Your task to perform on an android device: turn on bluetooth scan Image 0: 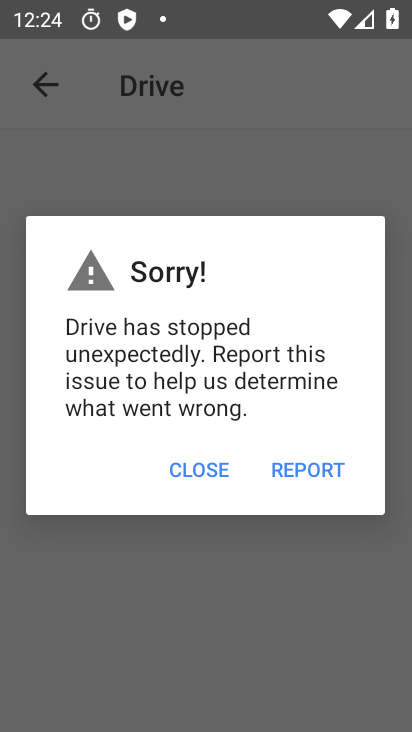
Step 0: press home button
Your task to perform on an android device: turn on bluetooth scan Image 1: 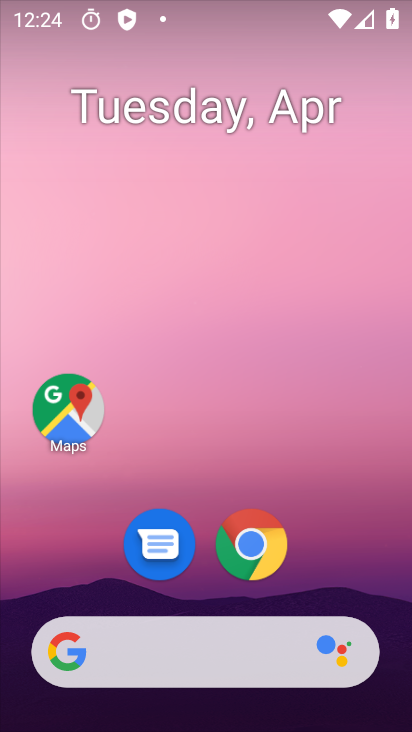
Step 1: drag from (360, 590) to (377, 32)
Your task to perform on an android device: turn on bluetooth scan Image 2: 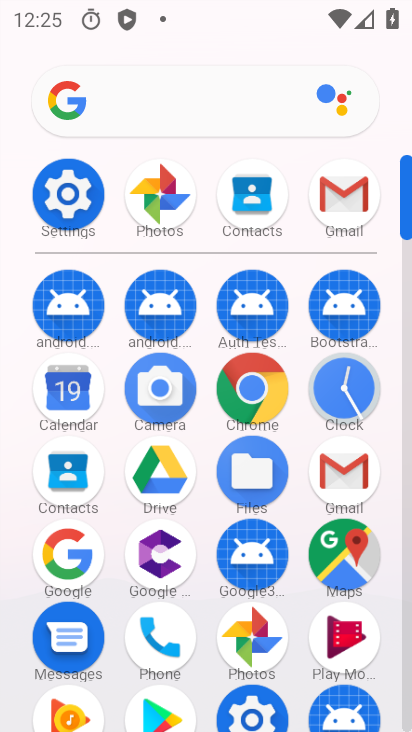
Step 2: click (72, 190)
Your task to perform on an android device: turn on bluetooth scan Image 3: 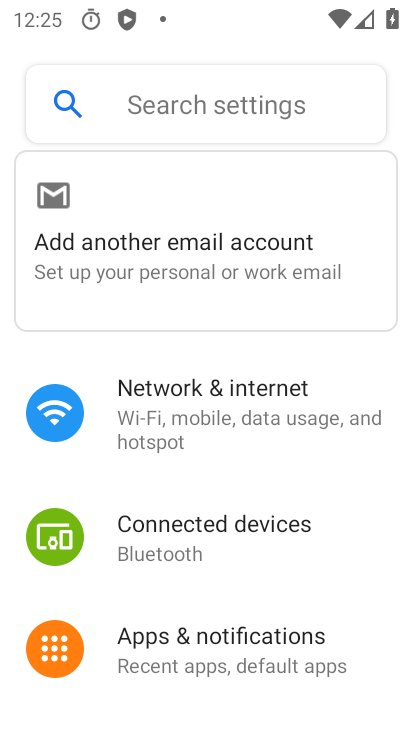
Step 3: drag from (393, 604) to (389, 271)
Your task to perform on an android device: turn on bluetooth scan Image 4: 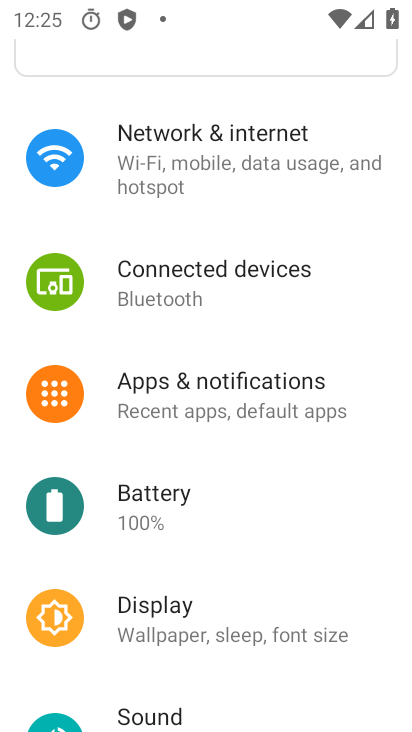
Step 4: drag from (395, 548) to (391, 325)
Your task to perform on an android device: turn on bluetooth scan Image 5: 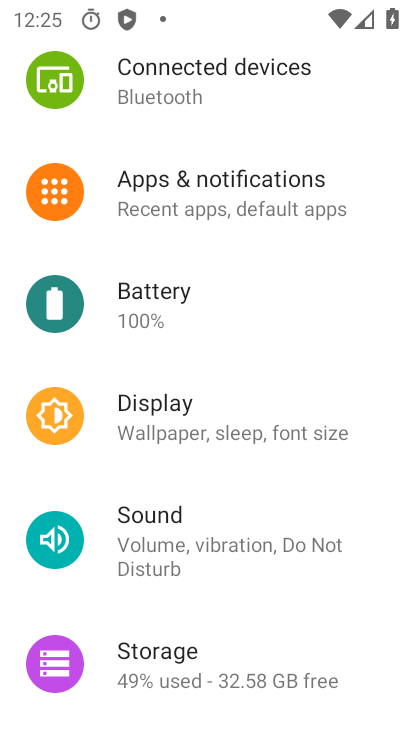
Step 5: drag from (388, 535) to (394, 327)
Your task to perform on an android device: turn on bluetooth scan Image 6: 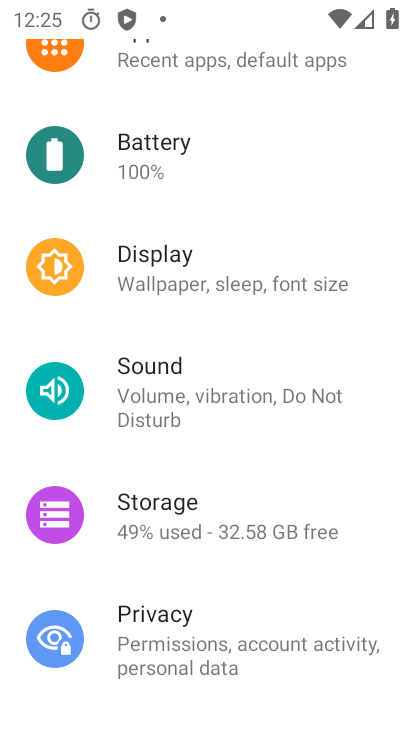
Step 6: drag from (392, 551) to (381, 254)
Your task to perform on an android device: turn on bluetooth scan Image 7: 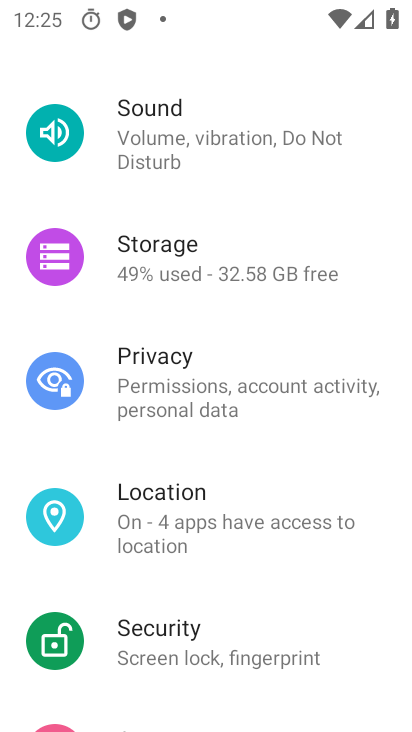
Step 7: drag from (388, 527) to (372, 272)
Your task to perform on an android device: turn on bluetooth scan Image 8: 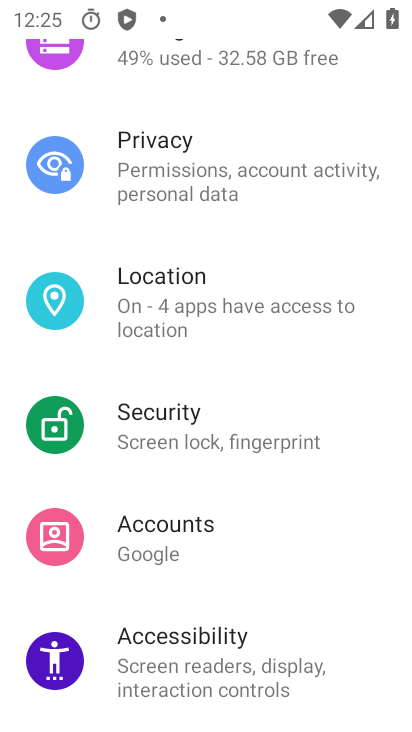
Step 8: click (203, 300)
Your task to perform on an android device: turn on bluetooth scan Image 9: 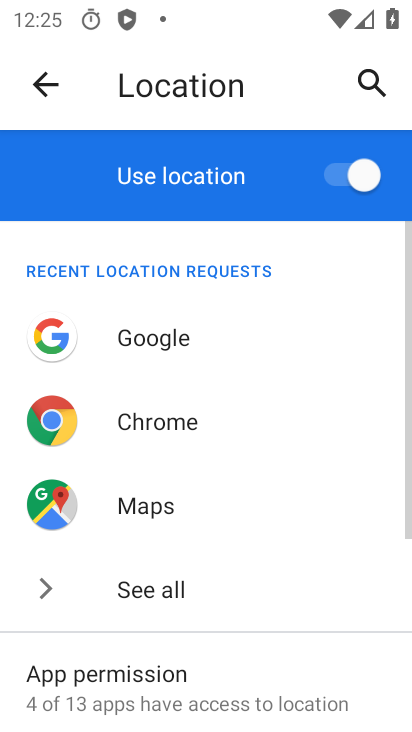
Step 9: drag from (284, 515) to (277, 188)
Your task to perform on an android device: turn on bluetooth scan Image 10: 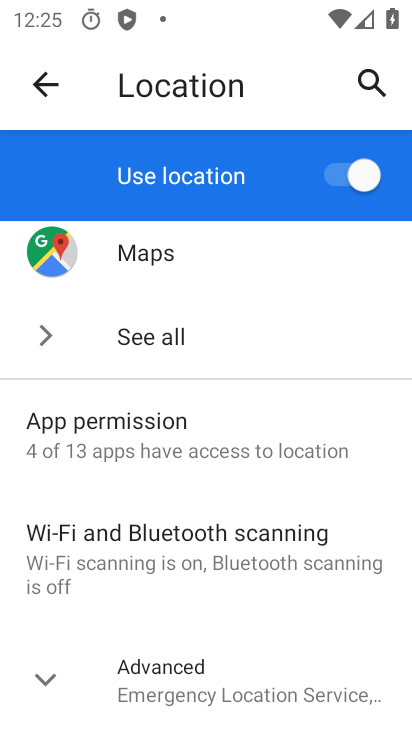
Step 10: click (176, 548)
Your task to perform on an android device: turn on bluetooth scan Image 11: 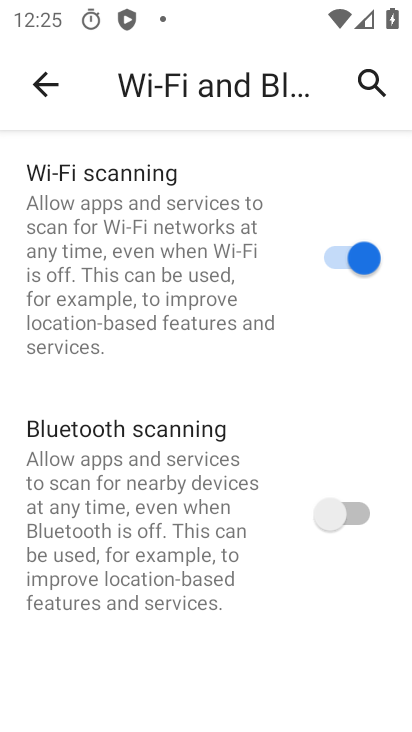
Step 11: click (363, 516)
Your task to perform on an android device: turn on bluetooth scan Image 12: 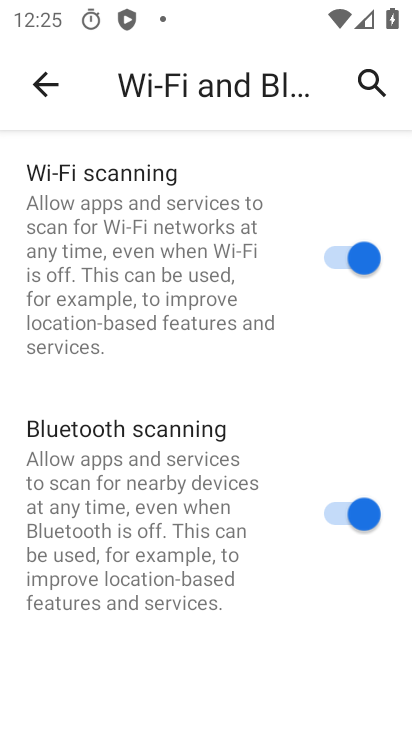
Step 12: task complete